Your task to perform on an android device: Open battery settings Image 0: 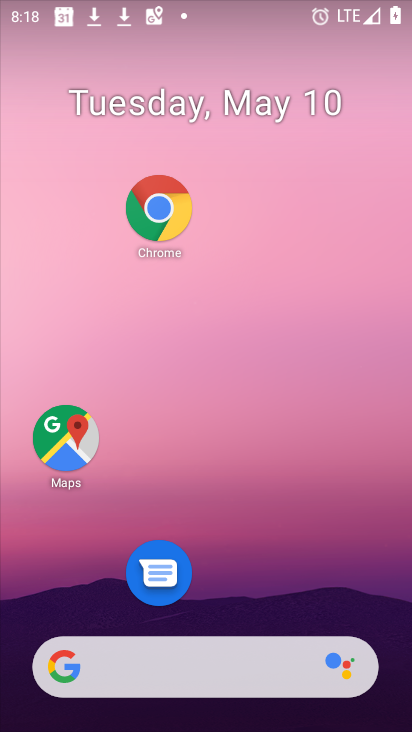
Step 0: drag from (332, 653) to (255, 222)
Your task to perform on an android device: Open battery settings Image 1: 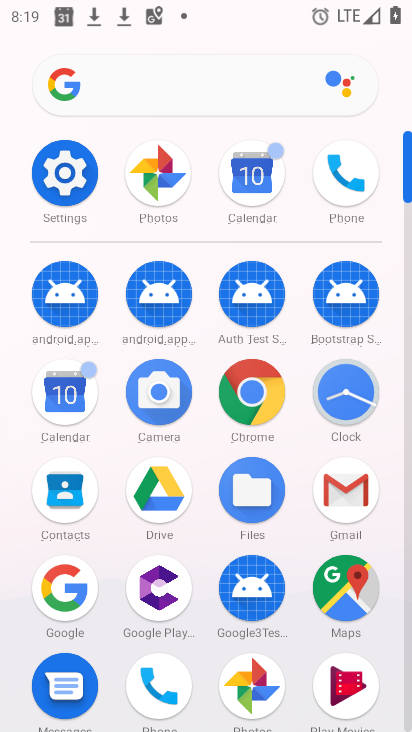
Step 1: click (63, 186)
Your task to perform on an android device: Open battery settings Image 2: 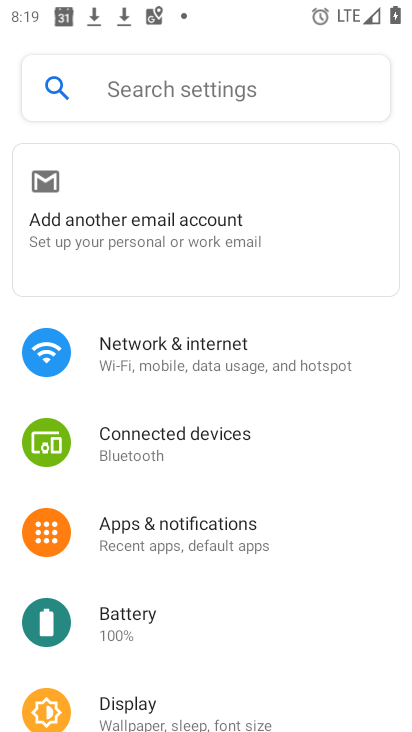
Step 2: click (158, 612)
Your task to perform on an android device: Open battery settings Image 3: 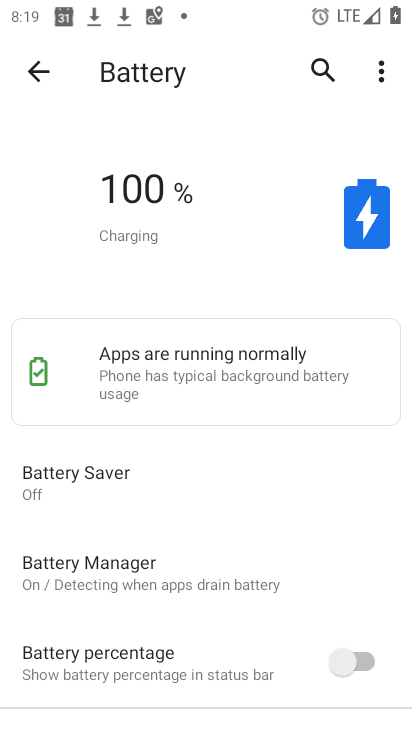
Step 3: task complete